Your task to perform on an android device: delete a single message in the gmail app Image 0: 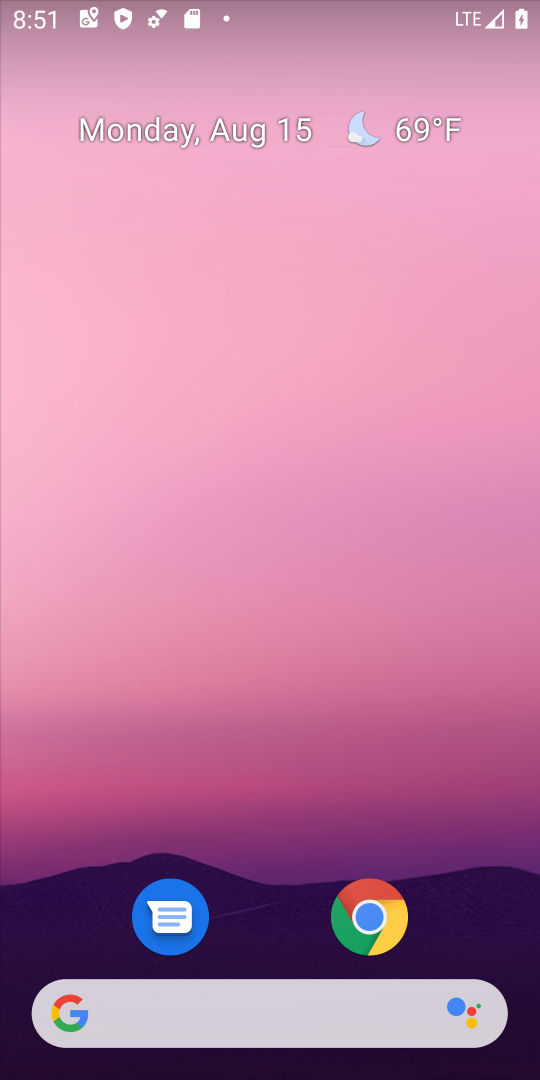
Step 0: drag from (290, 766) to (398, 0)
Your task to perform on an android device: delete a single message in the gmail app Image 1: 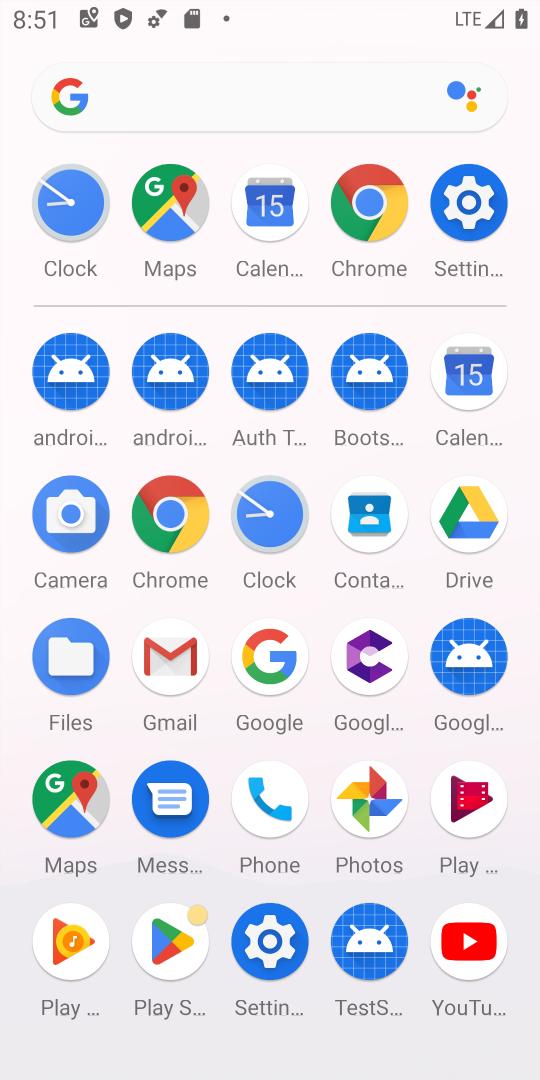
Step 1: click (175, 646)
Your task to perform on an android device: delete a single message in the gmail app Image 2: 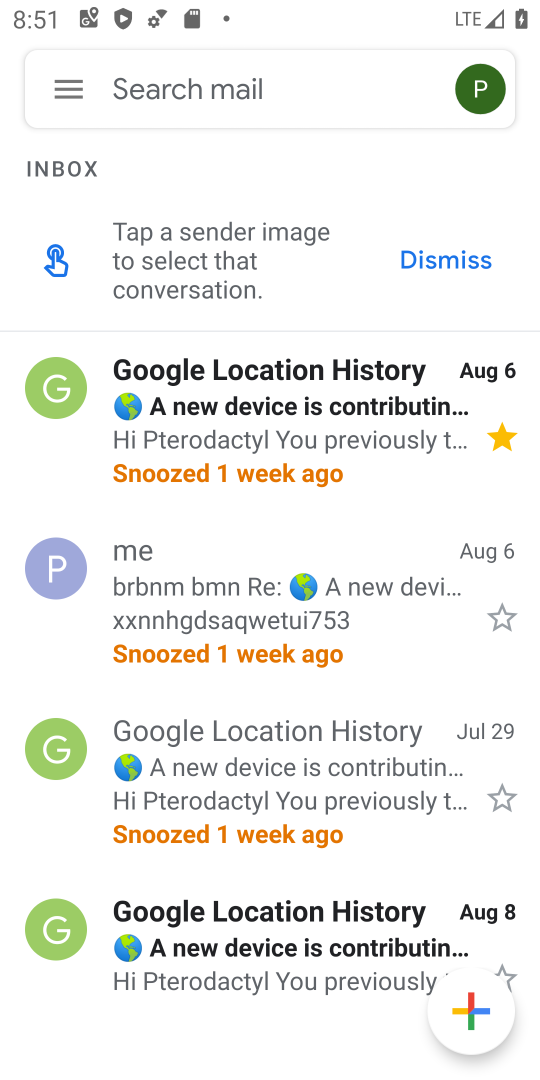
Step 2: click (72, 567)
Your task to perform on an android device: delete a single message in the gmail app Image 3: 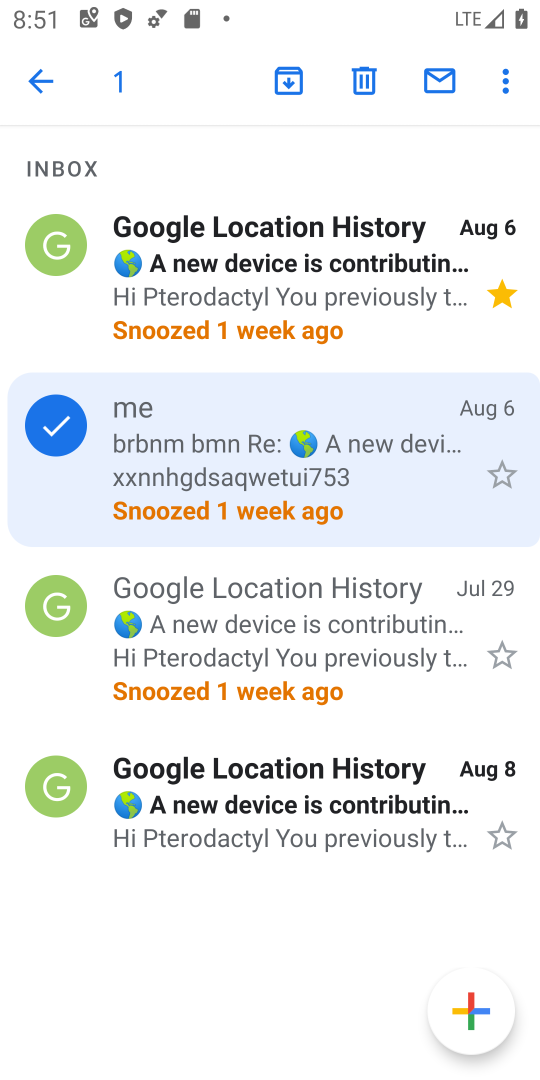
Step 3: click (63, 416)
Your task to perform on an android device: delete a single message in the gmail app Image 4: 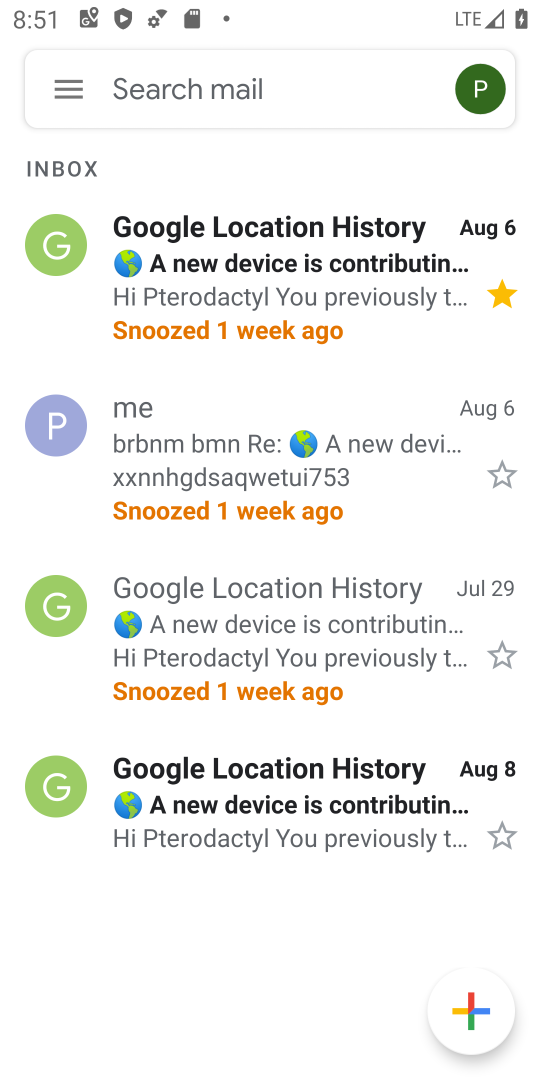
Step 4: click (65, 788)
Your task to perform on an android device: delete a single message in the gmail app Image 5: 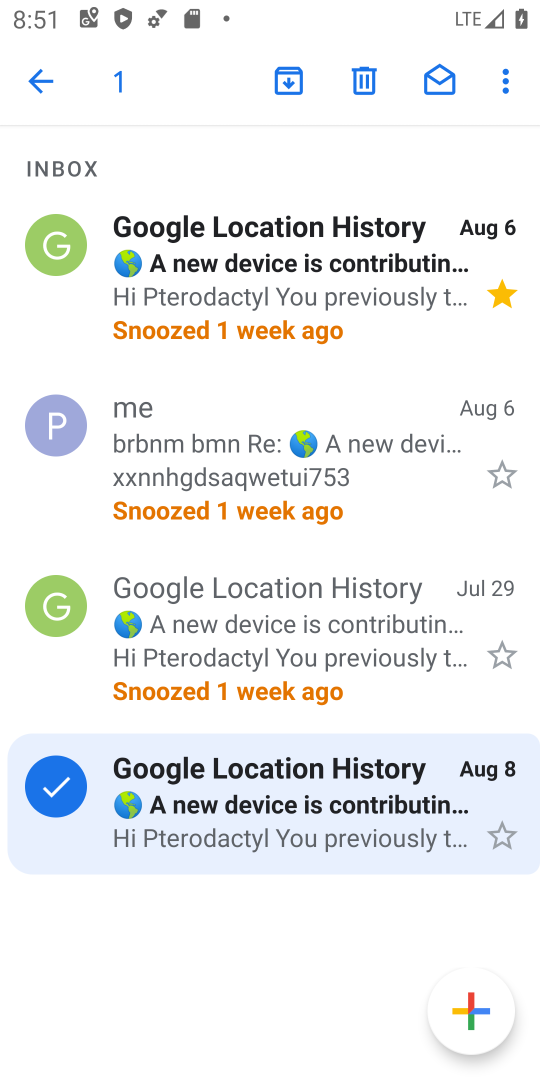
Step 5: click (47, 774)
Your task to perform on an android device: delete a single message in the gmail app Image 6: 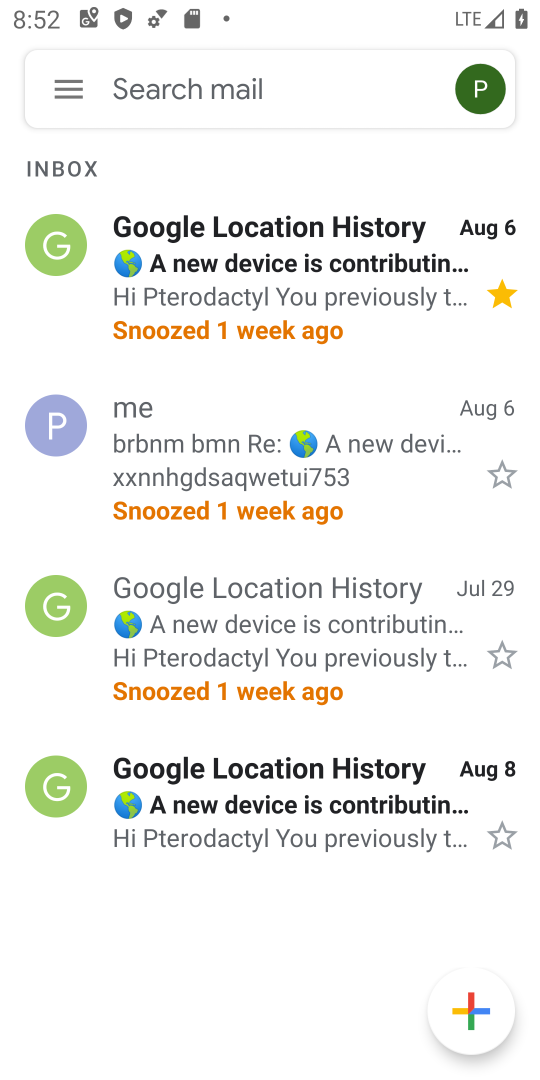
Step 6: click (59, 772)
Your task to perform on an android device: delete a single message in the gmail app Image 7: 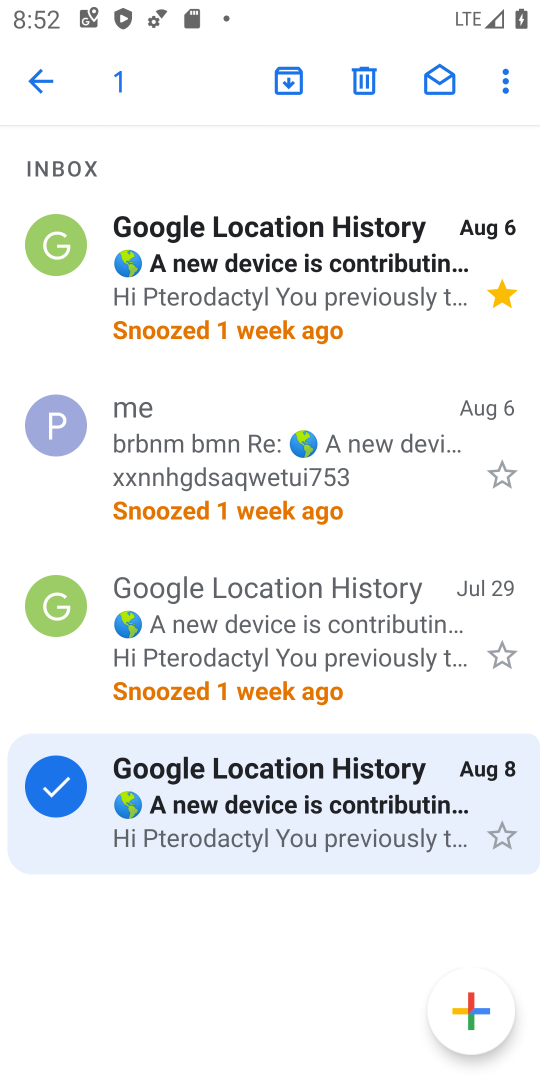
Step 7: click (373, 75)
Your task to perform on an android device: delete a single message in the gmail app Image 8: 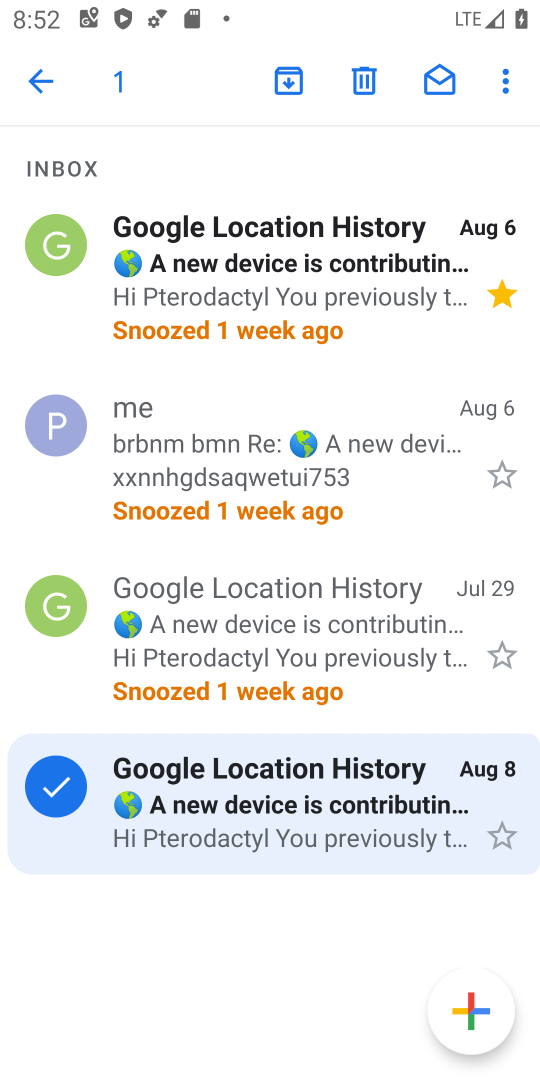
Step 8: click (379, 161)
Your task to perform on an android device: delete a single message in the gmail app Image 9: 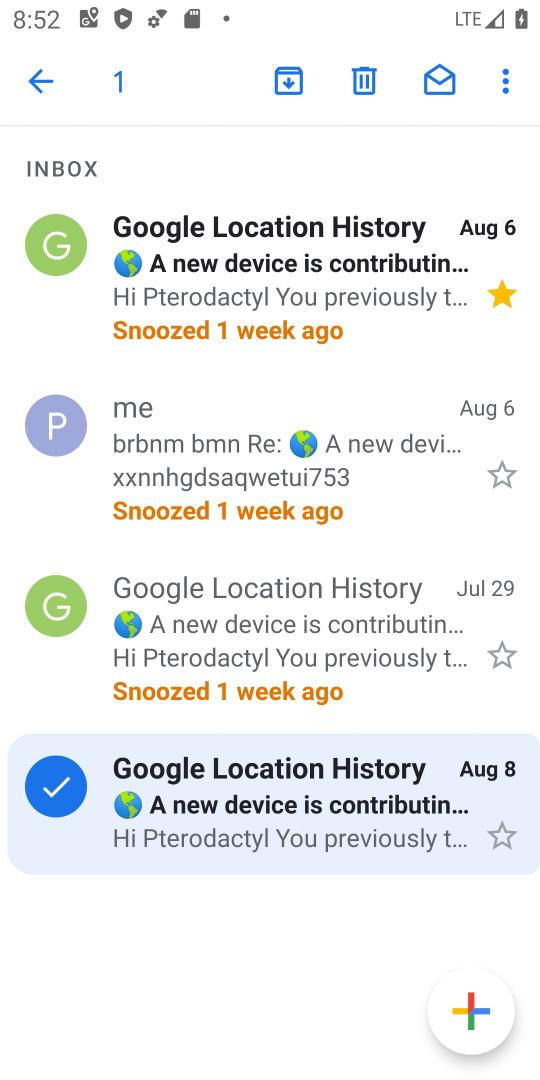
Step 9: click (355, 77)
Your task to perform on an android device: delete a single message in the gmail app Image 10: 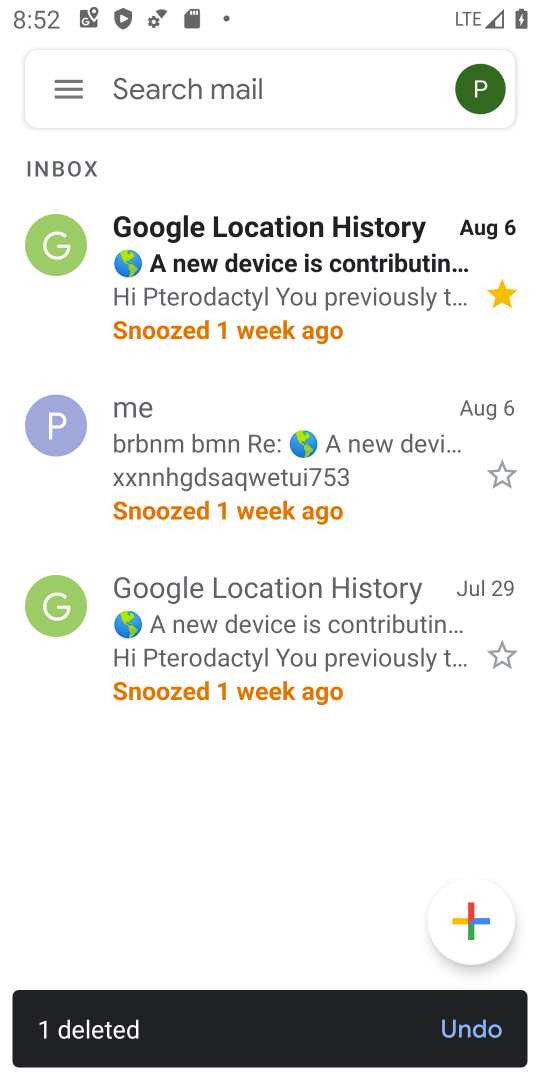
Step 10: task complete